Your task to perform on an android device: turn off wifi Image 0: 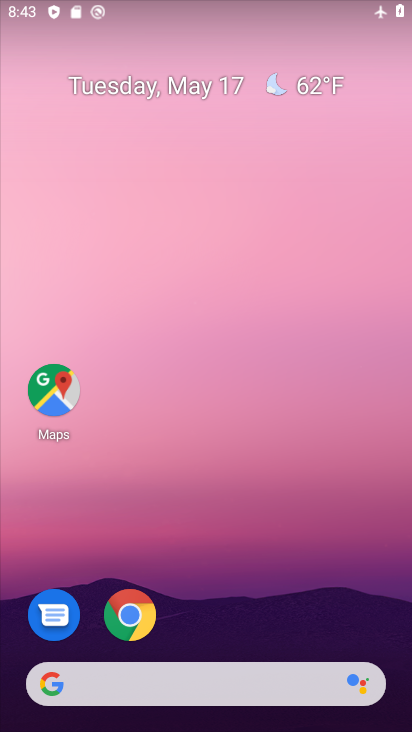
Step 0: drag from (354, 11) to (336, 494)
Your task to perform on an android device: turn off wifi Image 1: 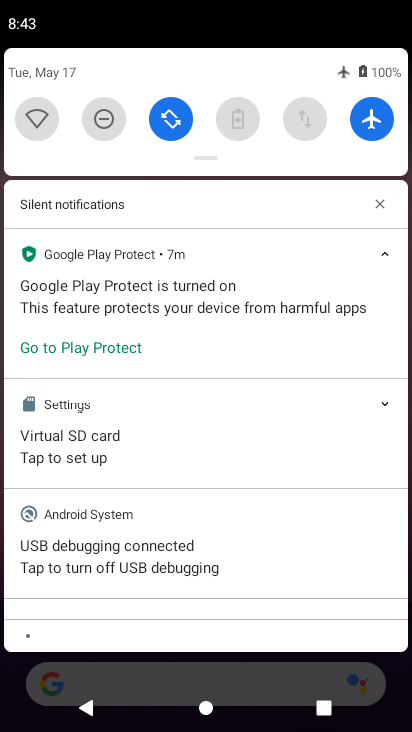
Step 1: task complete